Your task to perform on an android device: turn off priority inbox in the gmail app Image 0: 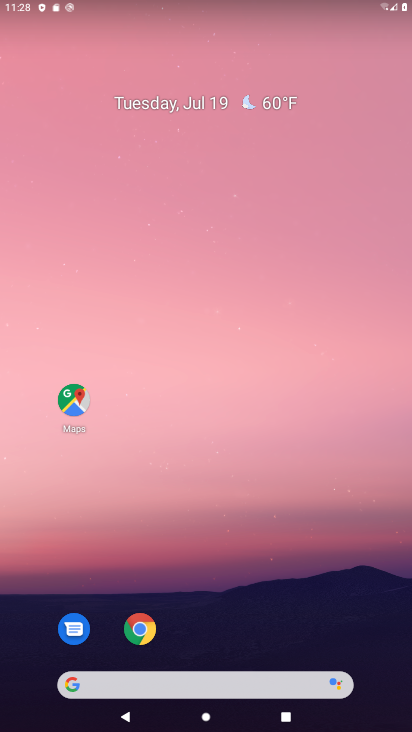
Step 0: drag from (336, 585) to (319, 196)
Your task to perform on an android device: turn off priority inbox in the gmail app Image 1: 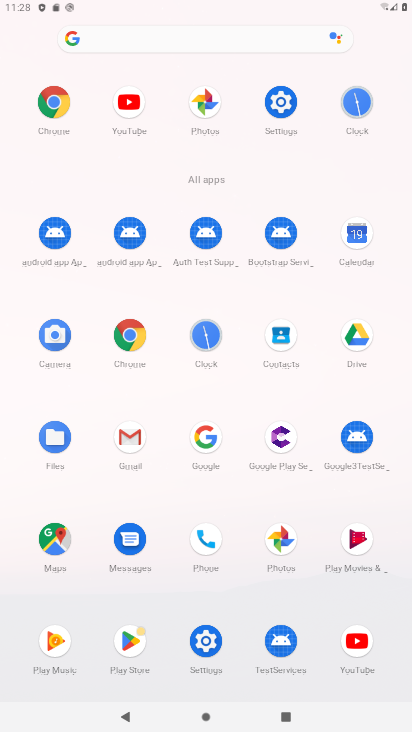
Step 1: click (120, 427)
Your task to perform on an android device: turn off priority inbox in the gmail app Image 2: 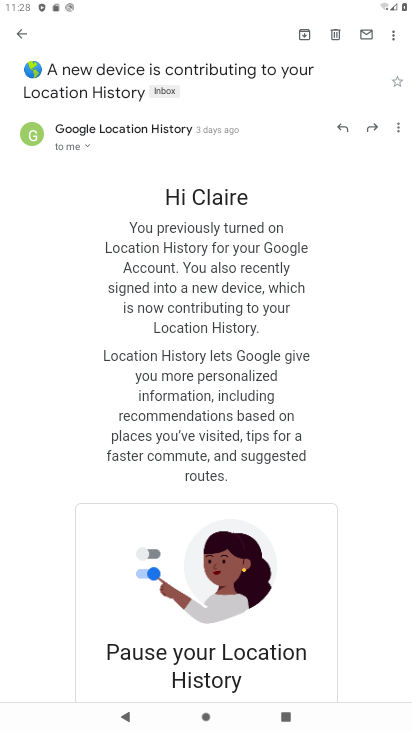
Step 2: click (27, 47)
Your task to perform on an android device: turn off priority inbox in the gmail app Image 3: 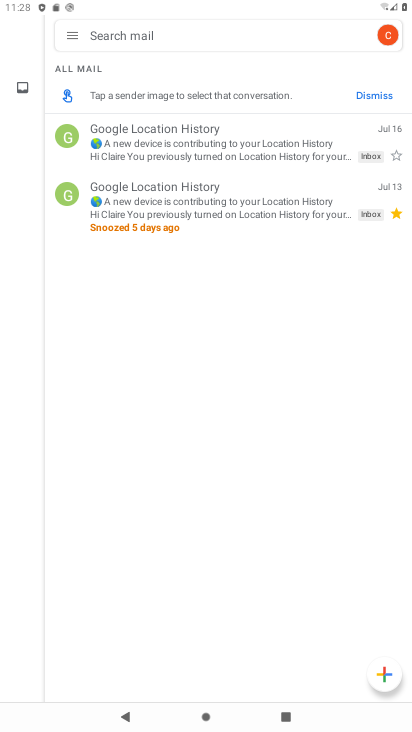
Step 3: click (86, 33)
Your task to perform on an android device: turn off priority inbox in the gmail app Image 4: 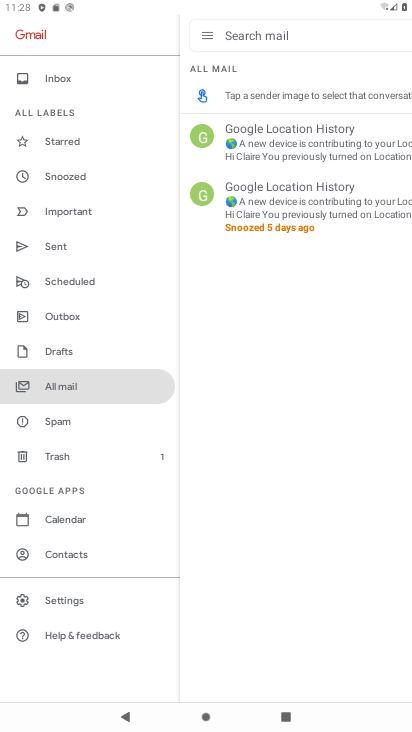
Step 4: click (82, 596)
Your task to perform on an android device: turn off priority inbox in the gmail app Image 5: 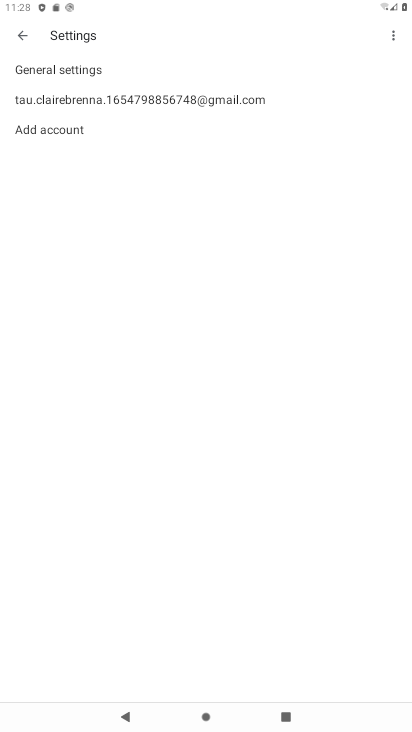
Step 5: click (245, 94)
Your task to perform on an android device: turn off priority inbox in the gmail app Image 6: 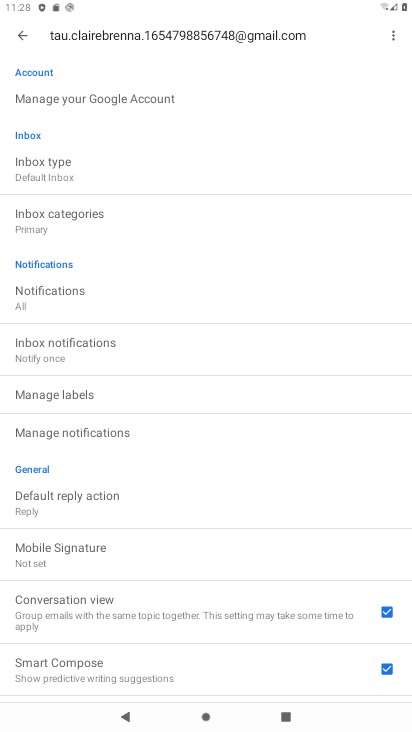
Step 6: click (63, 181)
Your task to perform on an android device: turn off priority inbox in the gmail app Image 7: 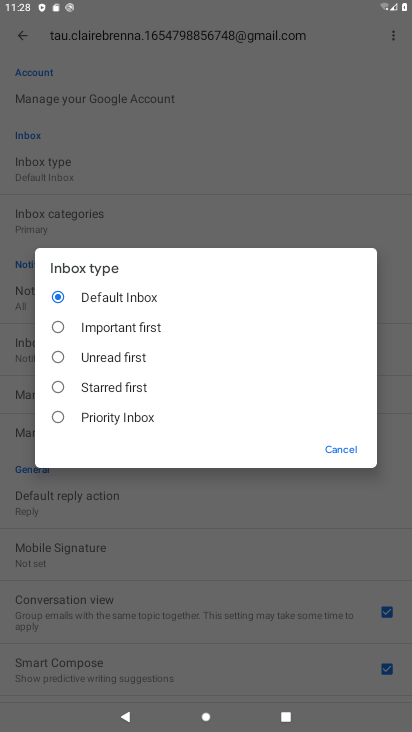
Step 7: click (111, 304)
Your task to perform on an android device: turn off priority inbox in the gmail app Image 8: 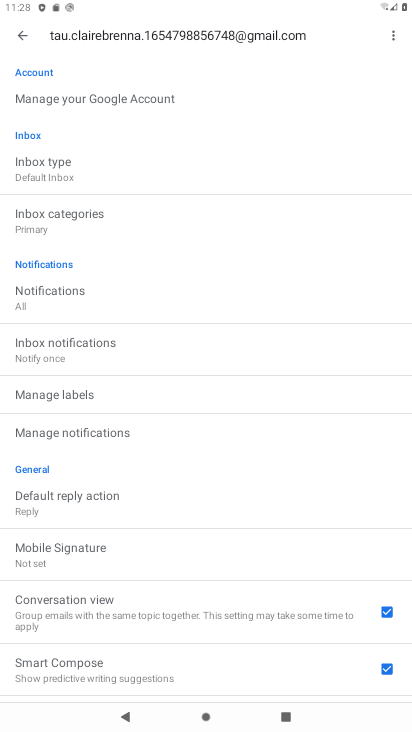
Step 8: task complete